Your task to perform on an android device: See recent photos Image 0: 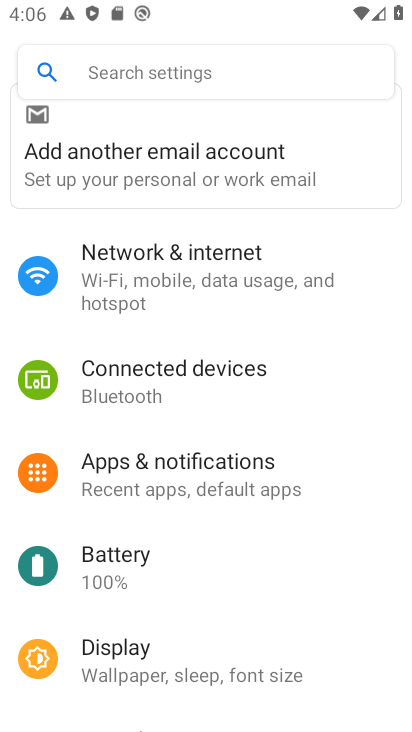
Step 0: press home button
Your task to perform on an android device: See recent photos Image 1: 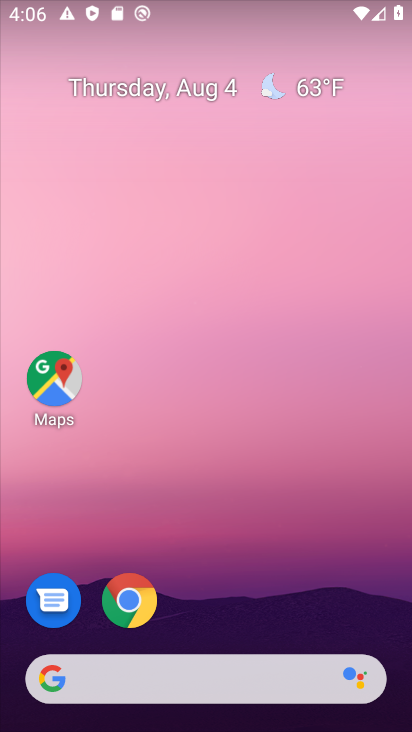
Step 1: drag from (337, 582) to (305, 68)
Your task to perform on an android device: See recent photos Image 2: 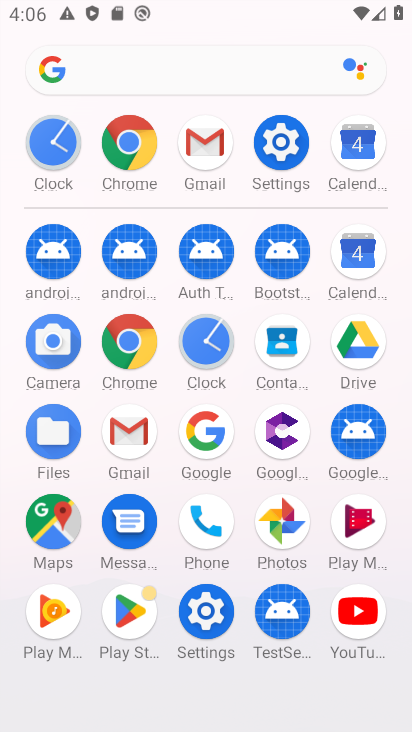
Step 2: click (274, 542)
Your task to perform on an android device: See recent photos Image 3: 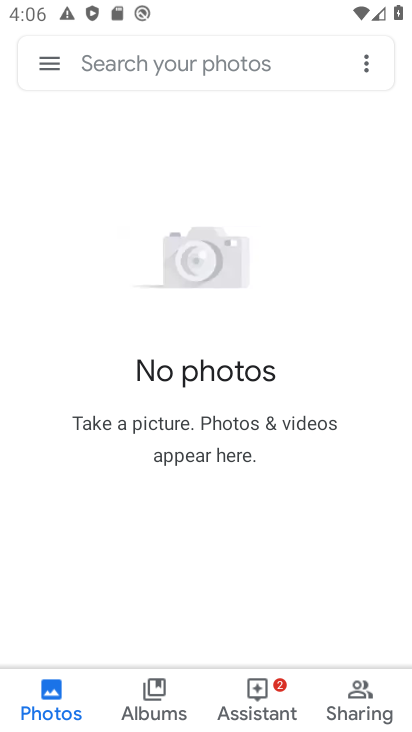
Step 3: task complete